Your task to perform on an android device: toggle location history Image 0: 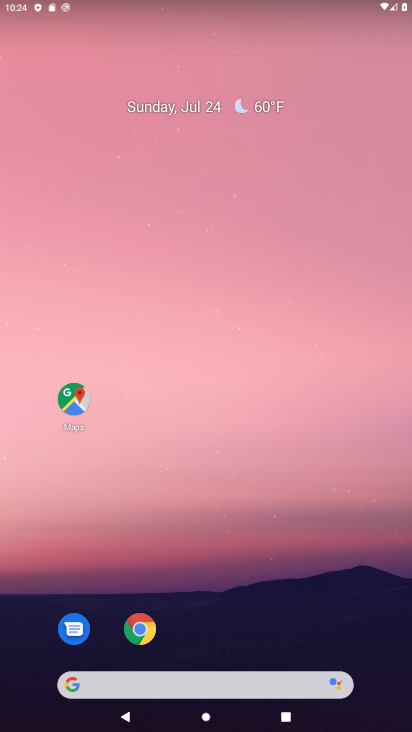
Step 0: drag from (288, 653) to (228, 260)
Your task to perform on an android device: toggle location history Image 1: 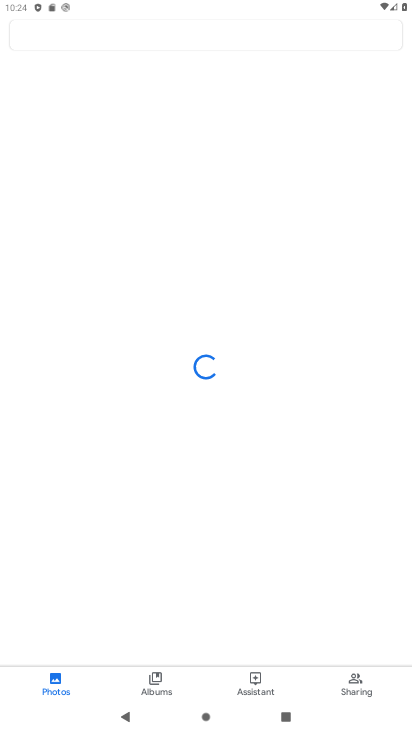
Step 1: press back button
Your task to perform on an android device: toggle location history Image 2: 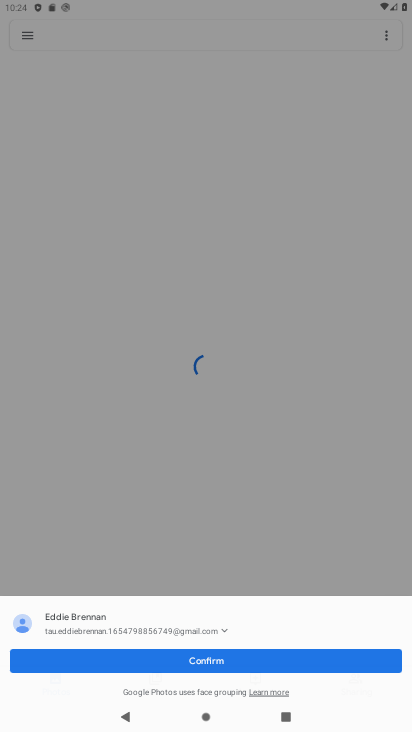
Step 2: press back button
Your task to perform on an android device: toggle location history Image 3: 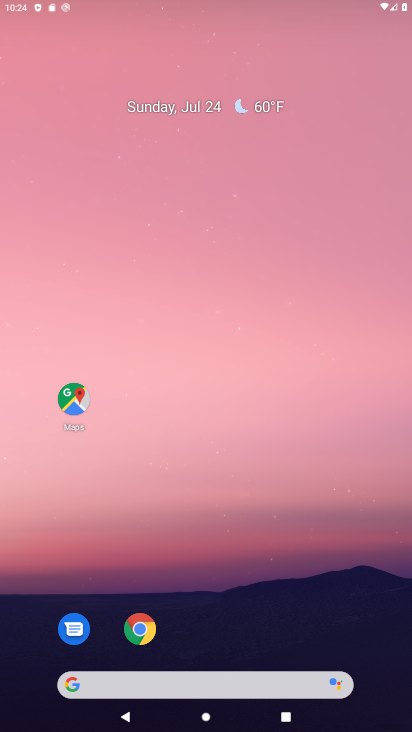
Step 3: press home button
Your task to perform on an android device: toggle location history Image 4: 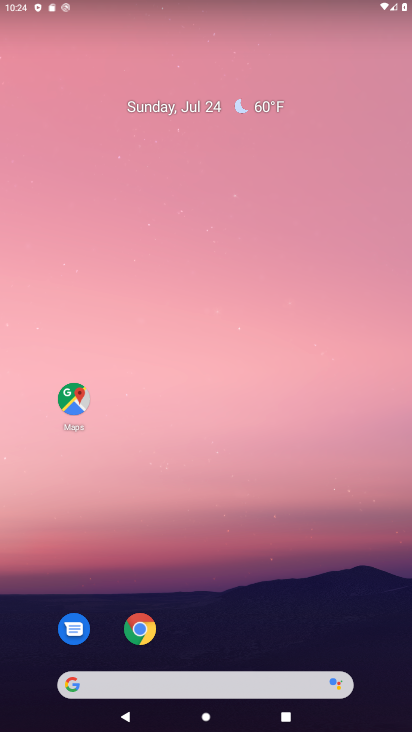
Step 4: drag from (266, 642) to (234, 180)
Your task to perform on an android device: toggle location history Image 5: 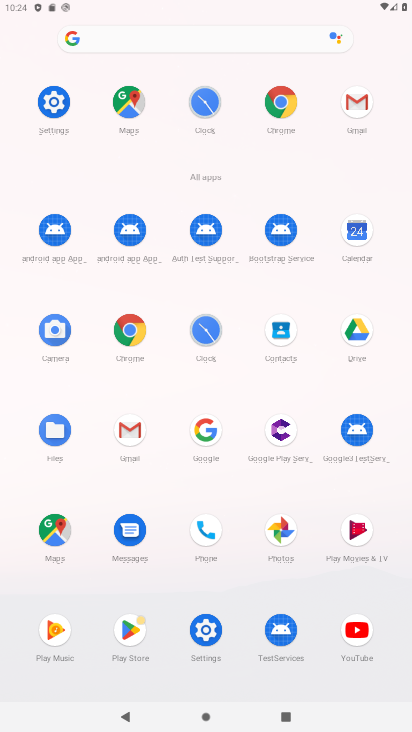
Step 5: click (58, 99)
Your task to perform on an android device: toggle location history Image 6: 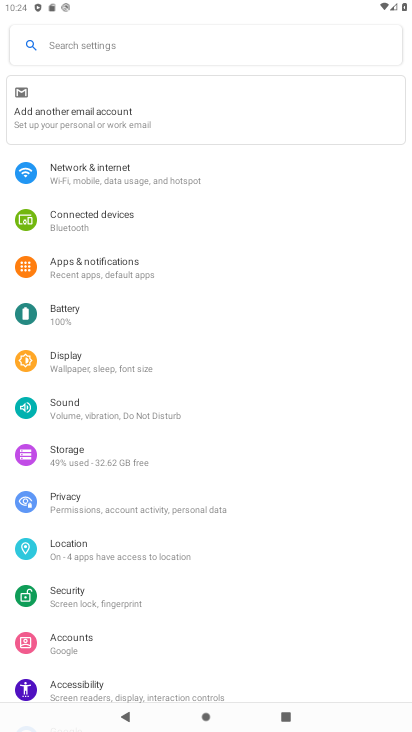
Step 6: click (83, 556)
Your task to perform on an android device: toggle location history Image 7: 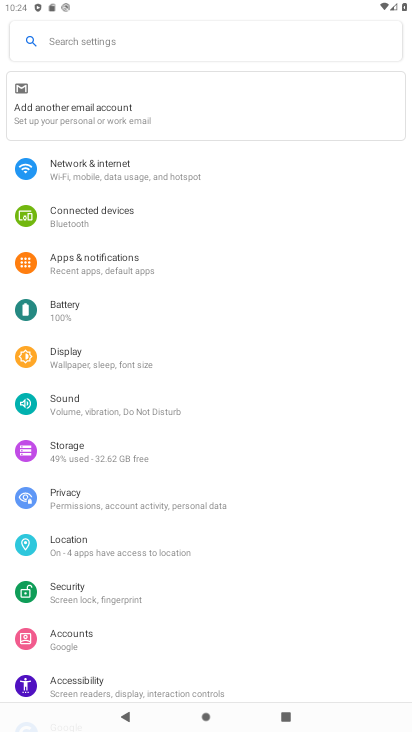
Step 7: click (86, 546)
Your task to perform on an android device: toggle location history Image 8: 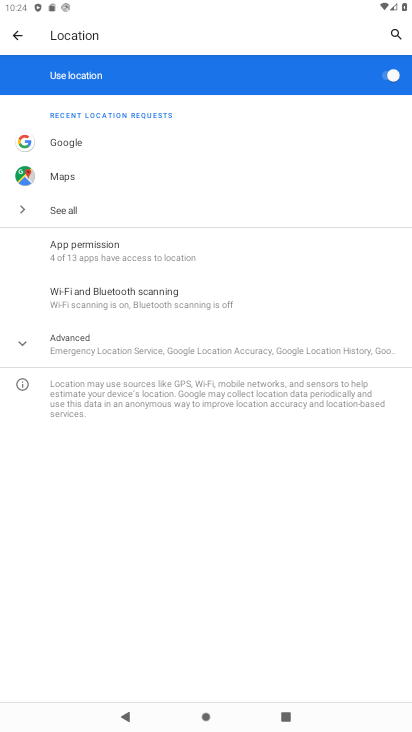
Step 8: click (63, 349)
Your task to perform on an android device: toggle location history Image 9: 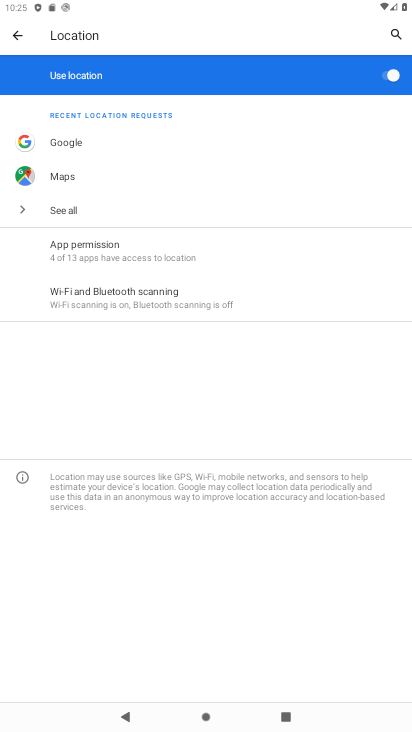
Step 9: click (63, 349)
Your task to perform on an android device: toggle location history Image 10: 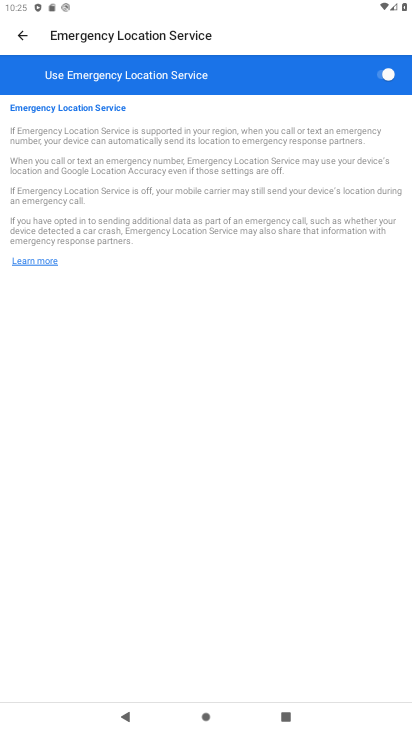
Step 10: click (25, 37)
Your task to perform on an android device: toggle location history Image 11: 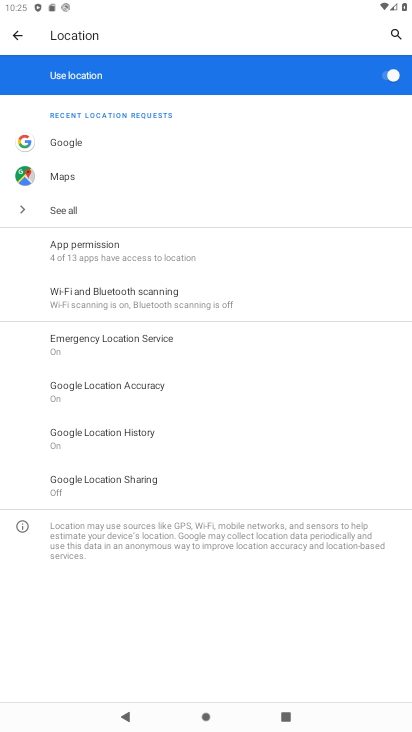
Step 11: click (116, 429)
Your task to perform on an android device: toggle location history Image 12: 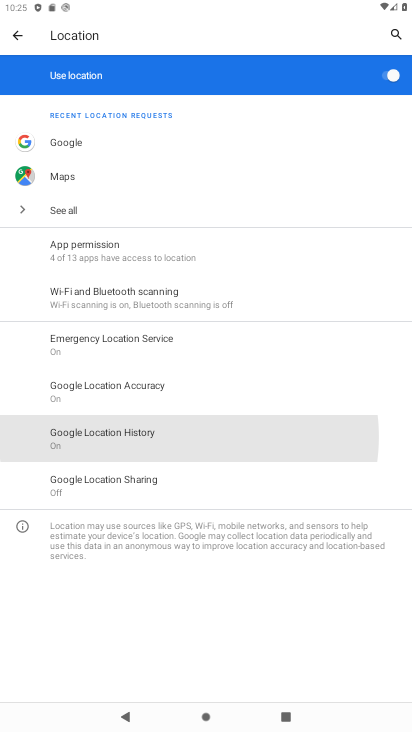
Step 12: click (124, 422)
Your task to perform on an android device: toggle location history Image 13: 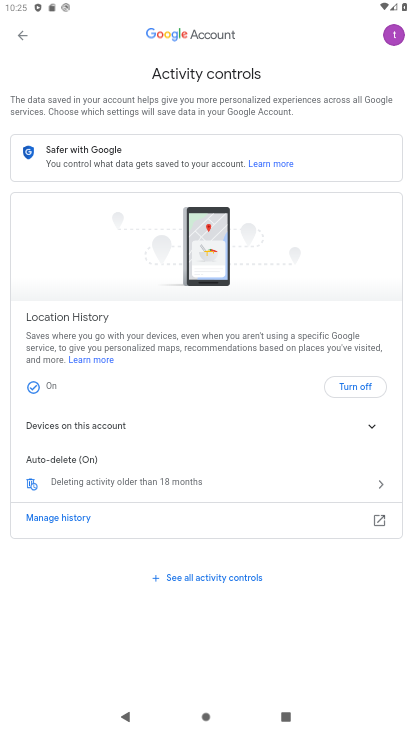
Step 13: click (363, 383)
Your task to perform on an android device: toggle location history Image 14: 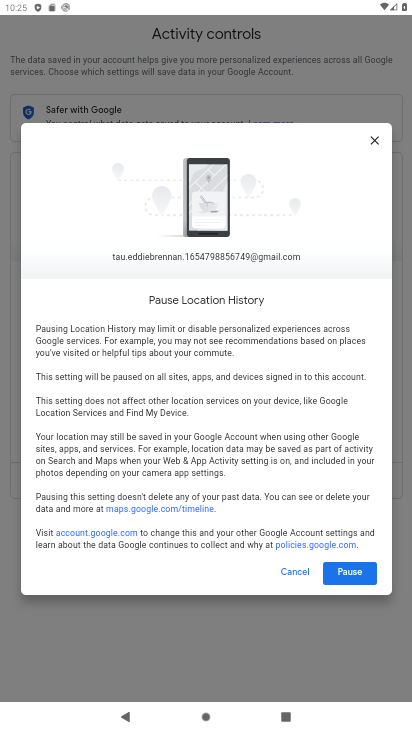
Step 14: click (262, 570)
Your task to perform on an android device: toggle location history Image 15: 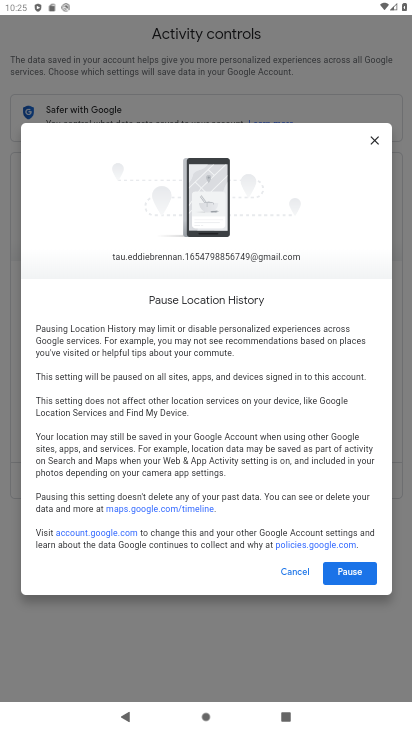
Step 15: task complete